Your task to perform on an android device: Open Google Chrome and open the bookmarks view Image 0: 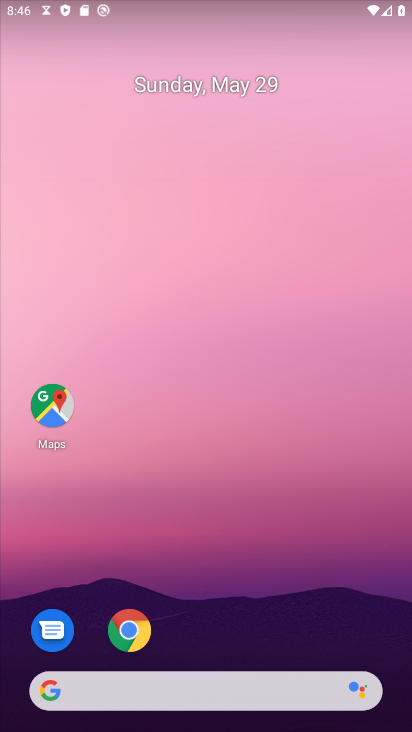
Step 0: click (130, 626)
Your task to perform on an android device: Open Google Chrome and open the bookmarks view Image 1: 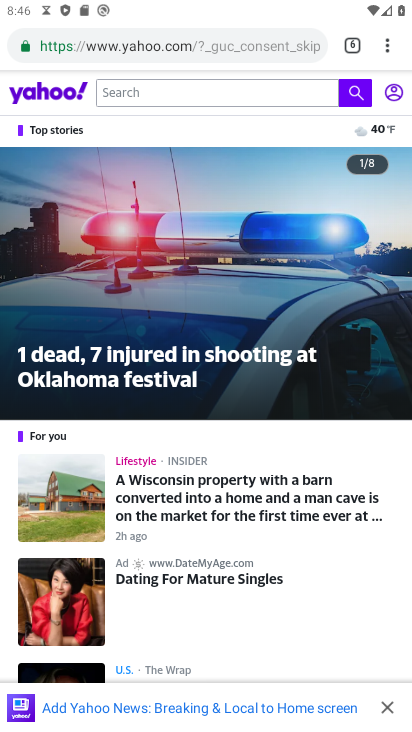
Step 1: click (395, 44)
Your task to perform on an android device: Open Google Chrome and open the bookmarks view Image 2: 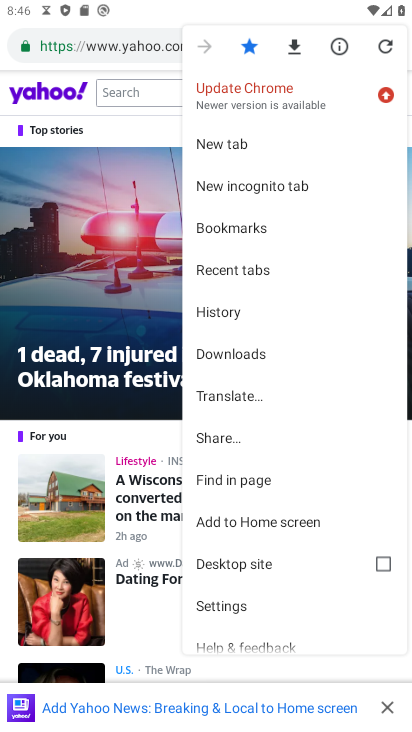
Step 2: click (235, 235)
Your task to perform on an android device: Open Google Chrome and open the bookmarks view Image 3: 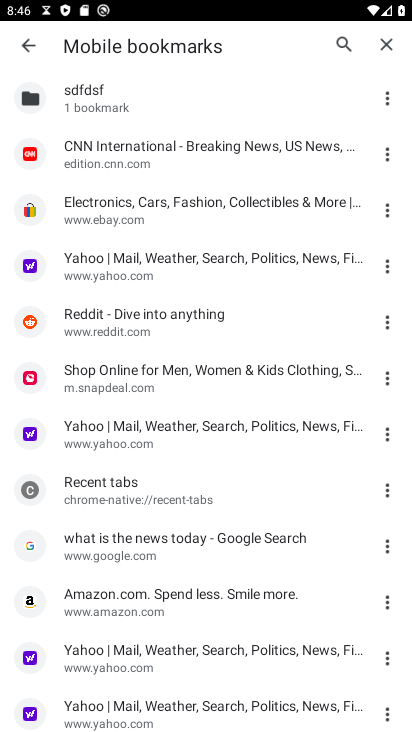
Step 3: task complete